Your task to perform on an android device: Go to Maps Image 0: 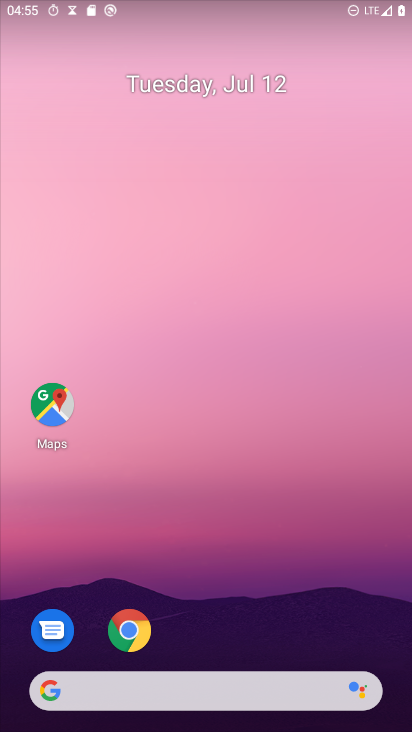
Step 0: drag from (186, 682) to (229, 5)
Your task to perform on an android device: Go to Maps Image 1: 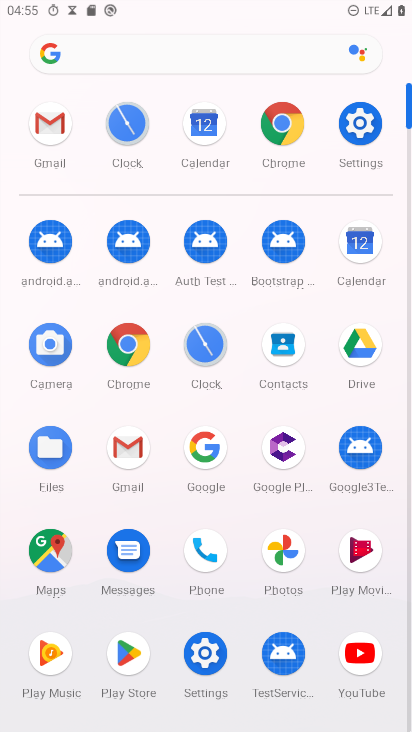
Step 1: click (58, 555)
Your task to perform on an android device: Go to Maps Image 2: 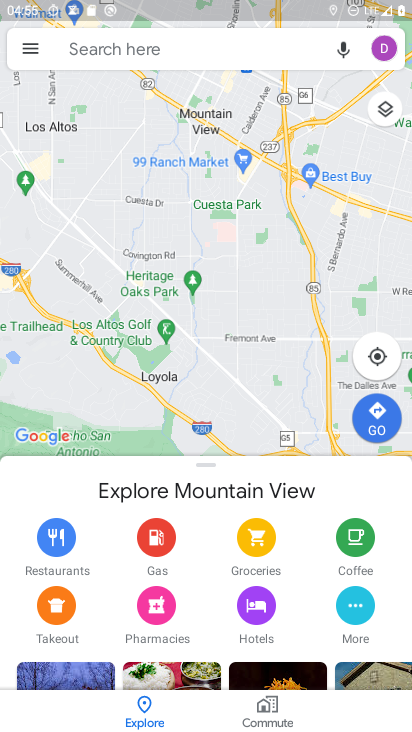
Step 2: task complete